Your task to perform on an android device: See recent photos Image 0: 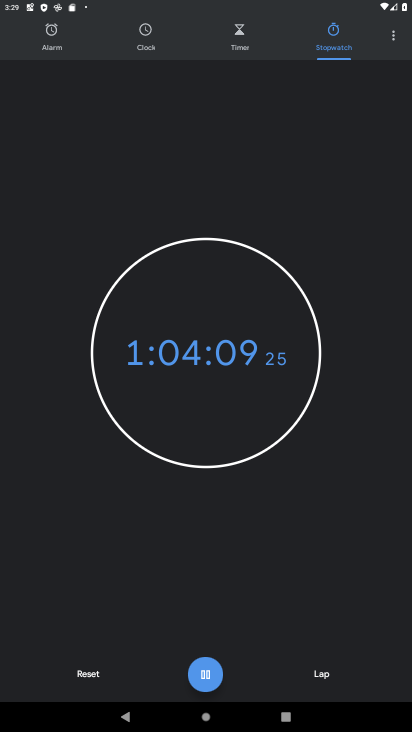
Step 0: press home button
Your task to perform on an android device: See recent photos Image 1: 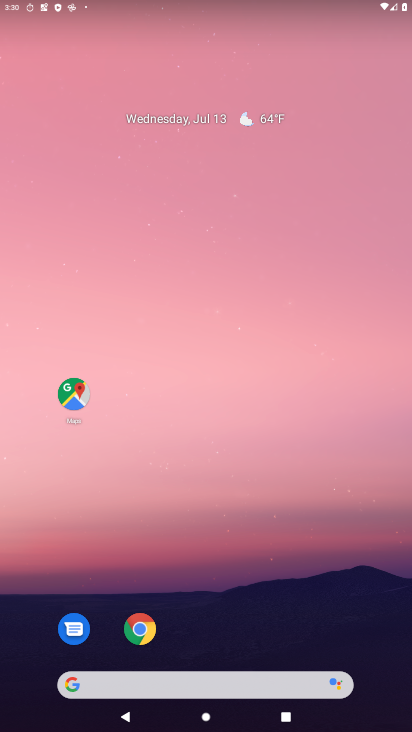
Step 1: drag from (289, 690) to (280, 167)
Your task to perform on an android device: See recent photos Image 2: 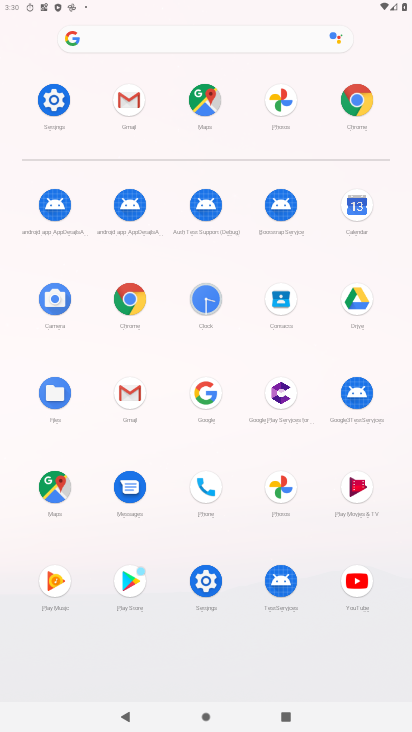
Step 2: click (281, 489)
Your task to perform on an android device: See recent photos Image 3: 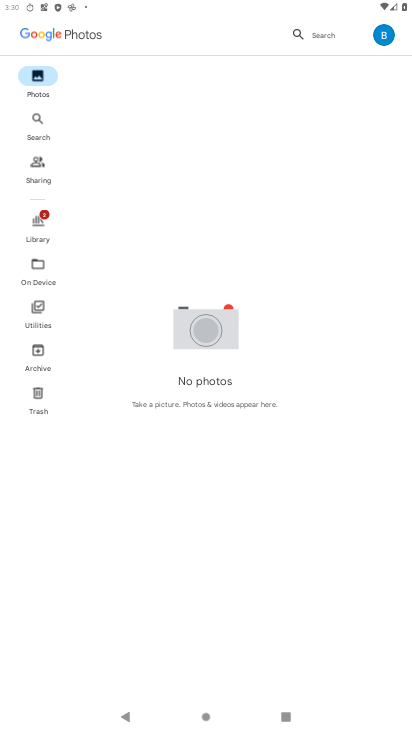
Step 3: task complete